Your task to perform on an android device: turn off javascript in the chrome app Image 0: 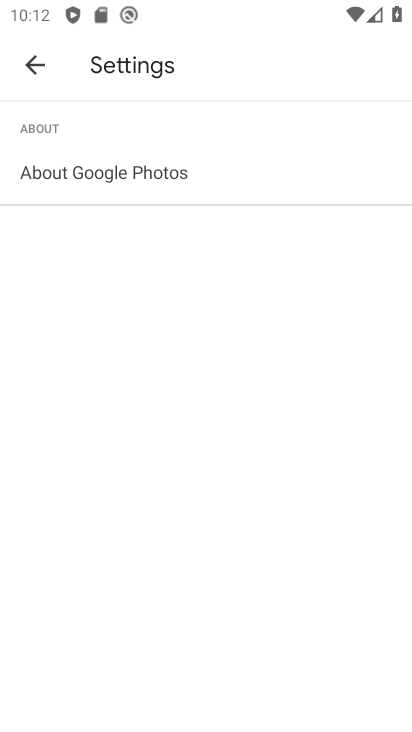
Step 0: press home button
Your task to perform on an android device: turn off javascript in the chrome app Image 1: 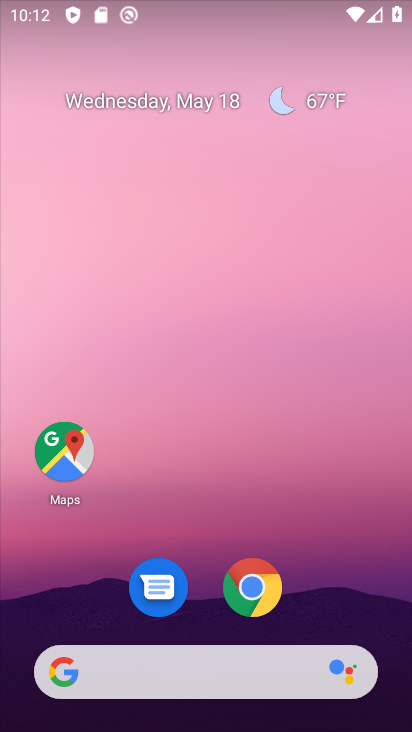
Step 1: click (253, 580)
Your task to perform on an android device: turn off javascript in the chrome app Image 2: 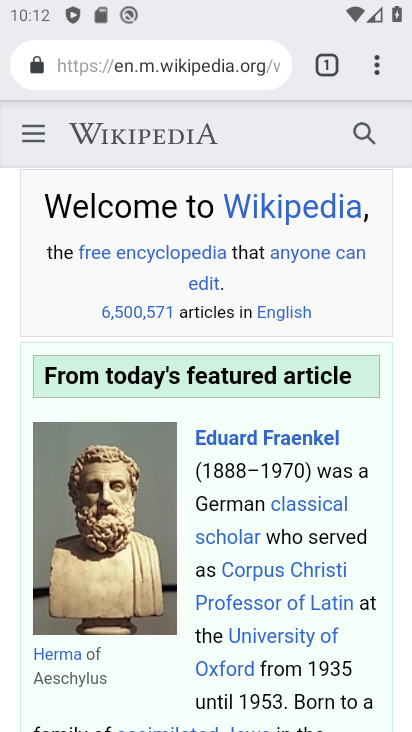
Step 2: click (376, 71)
Your task to perform on an android device: turn off javascript in the chrome app Image 3: 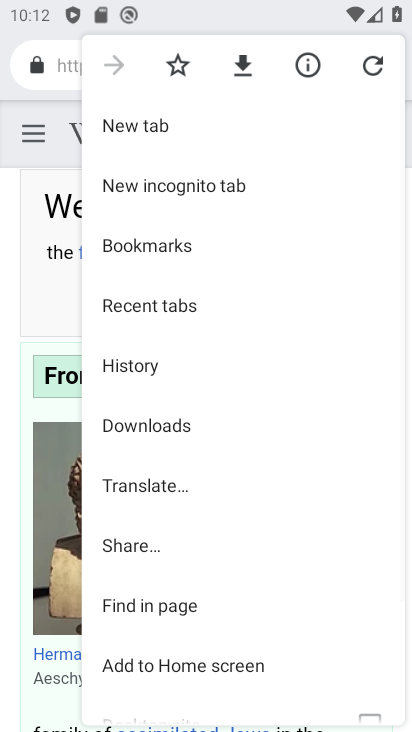
Step 3: drag from (243, 619) to (209, 225)
Your task to perform on an android device: turn off javascript in the chrome app Image 4: 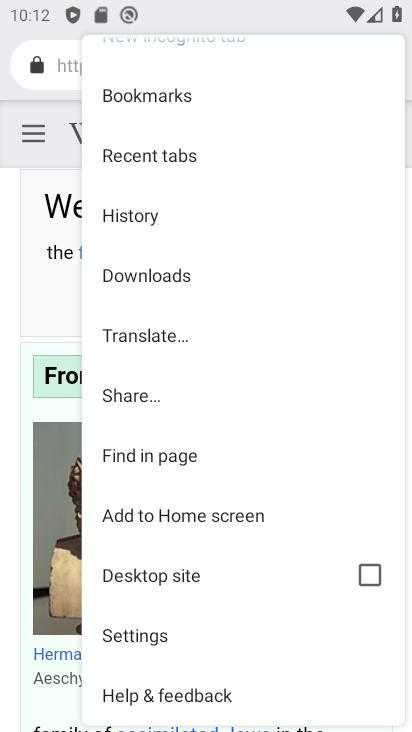
Step 4: click (183, 630)
Your task to perform on an android device: turn off javascript in the chrome app Image 5: 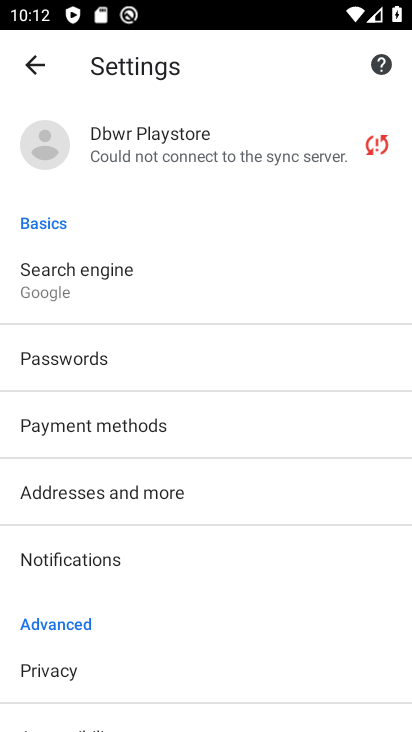
Step 5: drag from (175, 646) to (231, 247)
Your task to perform on an android device: turn off javascript in the chrome app Image 6: 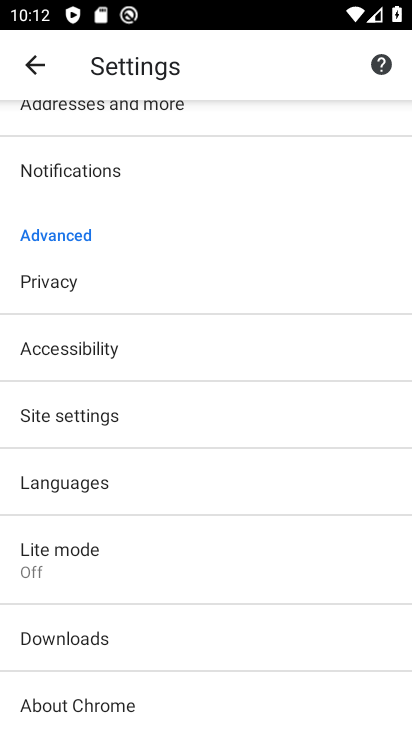
Step 6: drag from (219, 549) to (274, 253)
Your task to perform on an android device: turn off javascript in the chrome app Image 7: 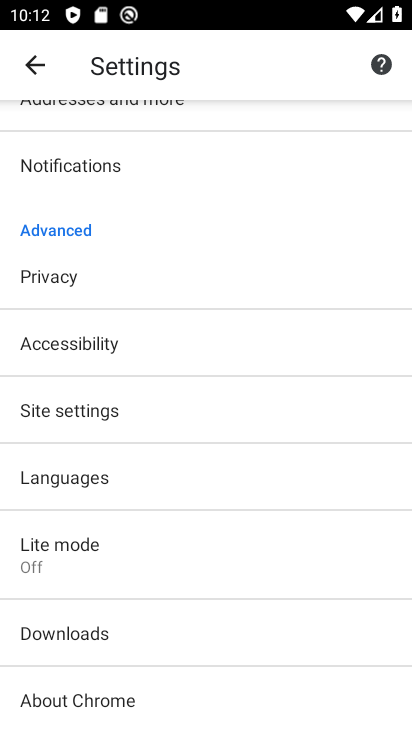
Step 7: click (161, 396)
Your task to perform on an android device: turn off javascript in the chrome app Image 8: 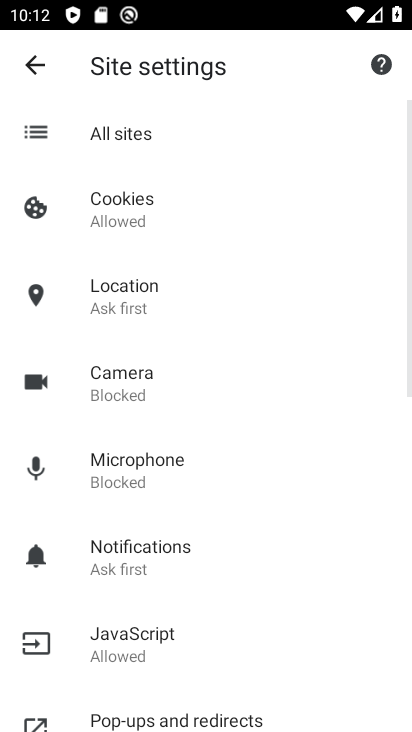
Step 8: drag from (215, 523) to (257, 307)
Your task to perform on an android device: turn off javascript in the chrome app Image 9: 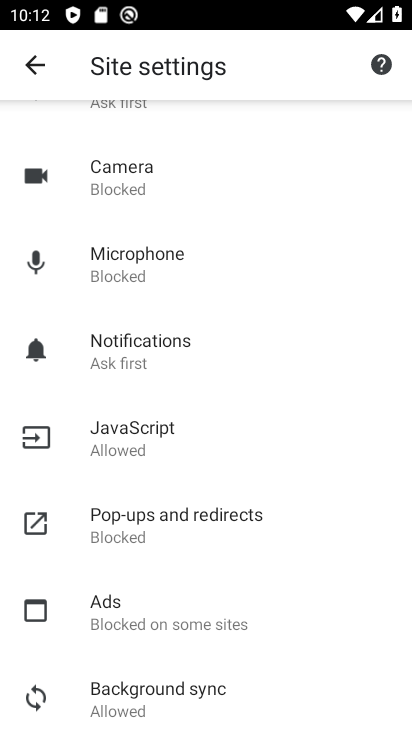
Step 9: click (117, 441)
Your task to perform on an android device: turn off javascript in the chrome app Image 10: 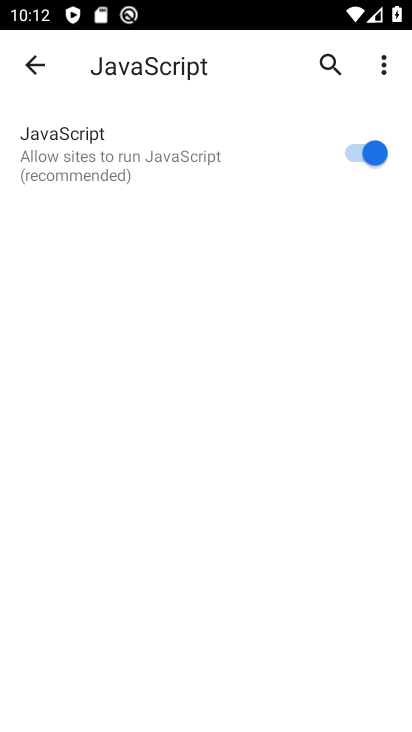
Step 10: click (346, 147)
Your task to perform on an android device: turn off javascript in the chrome app Image 11: 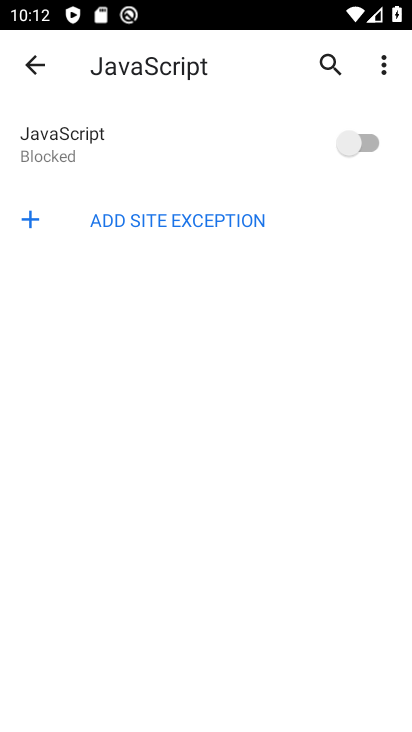
Step 11: task complete